Your task to perform on an android device: remove spam from my inbox in the gmail app Image 0: 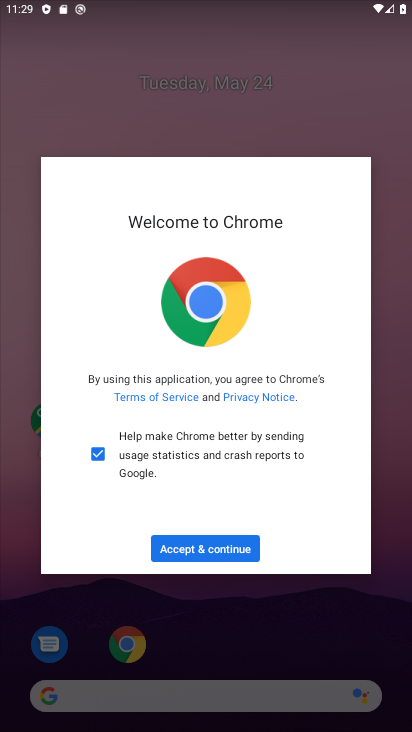
Step 0: press home button
Your task to perform on an android device: remove spam from my inbox in the gmail app Image 1: 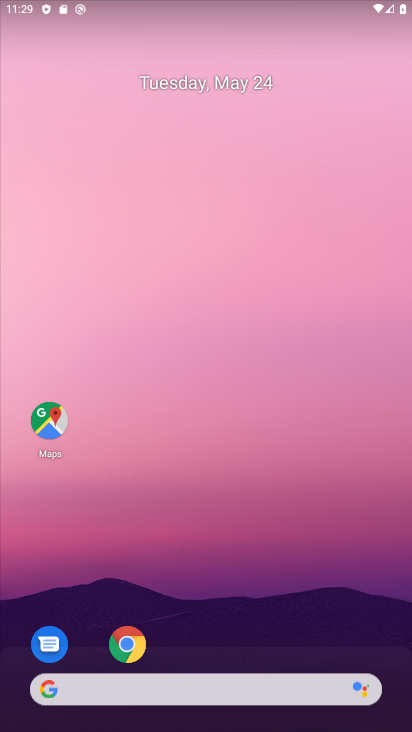
Step 1: drag from (199, 662) to (293, 134)
Your task to perform on an android device: remove spam from my inbox in the gmail app Image 2: 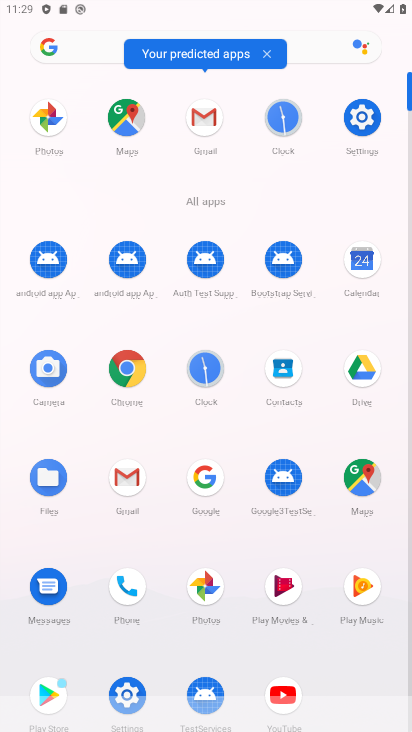
Step 2: click (132, 477)
Your task to perform on an android device: remove spam from my inbox in the gmail app Image 3: 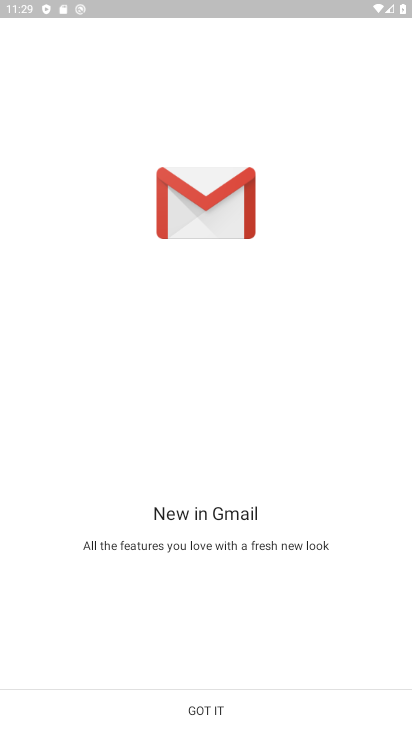
Step 3: click (217, 725)
Your task to perform on an android device: remove spam from my inbox in the gmail app Image 4: 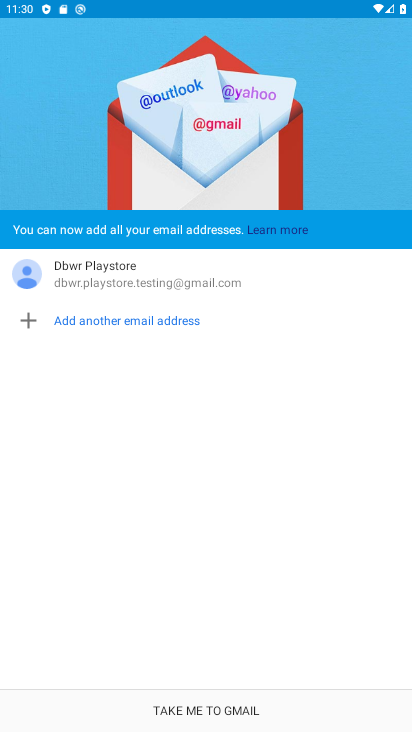
Step 4: click (231, 709)
Your task to perform on an android device: remove spam from my inbox in the gmail app Image 5: 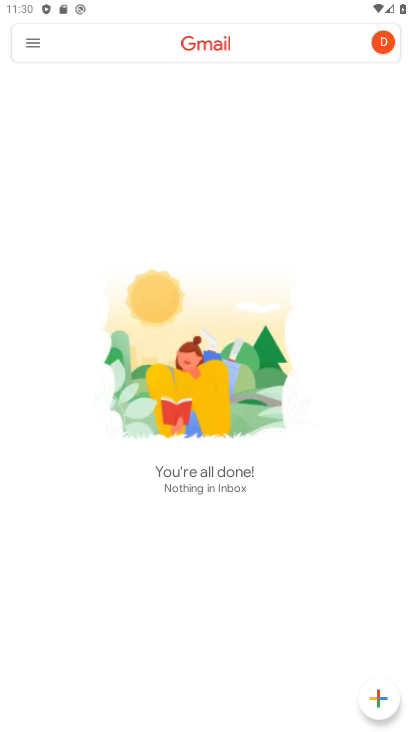
Step 5: click (52, 31)
Your task to perform on an android device: remove spam from my inbox in the gmail app Image 6: 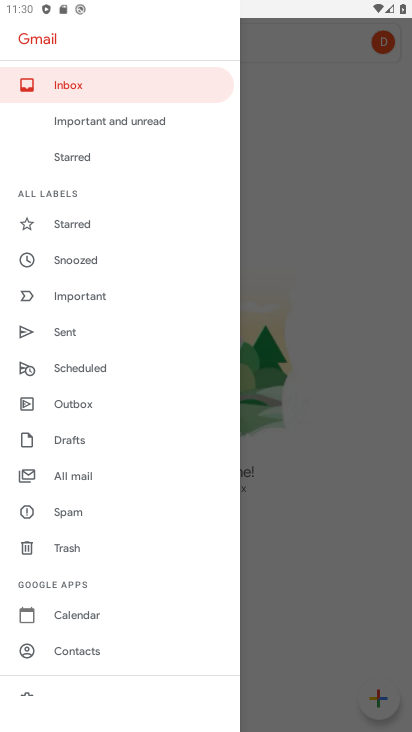
Step 6: click (95, 521)
Your task to perform on an android device: remove spam from my inbox in the gmail app Image 7: 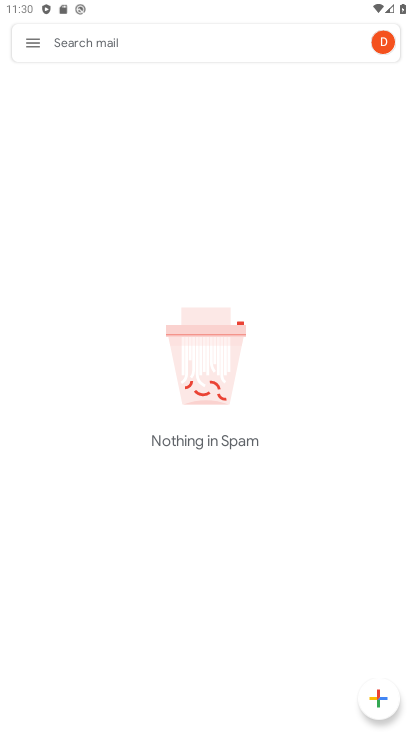
Step 7: task complete